Your task to perform on an android device: show emergency info Image 0: 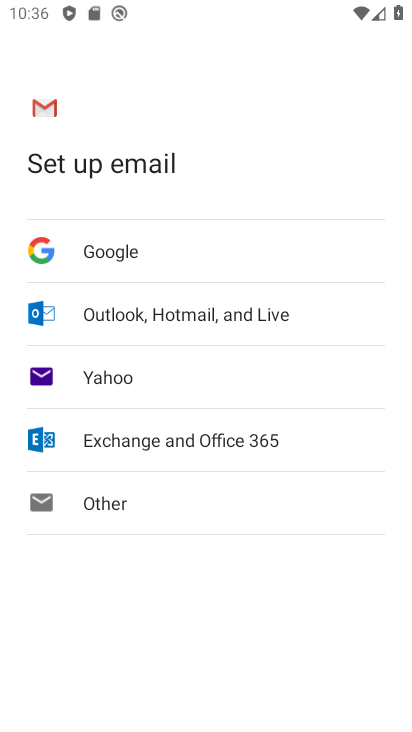
Step 0: press home button
Your task to perform on an android device: show emergency info Image 1: 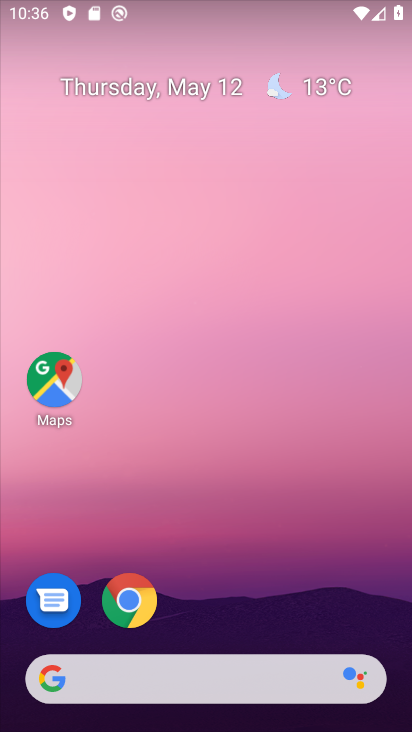
Step 1: drag from (395, 641) to (292, 126)
Your task to perform on an android device: show emergency info Image 2: 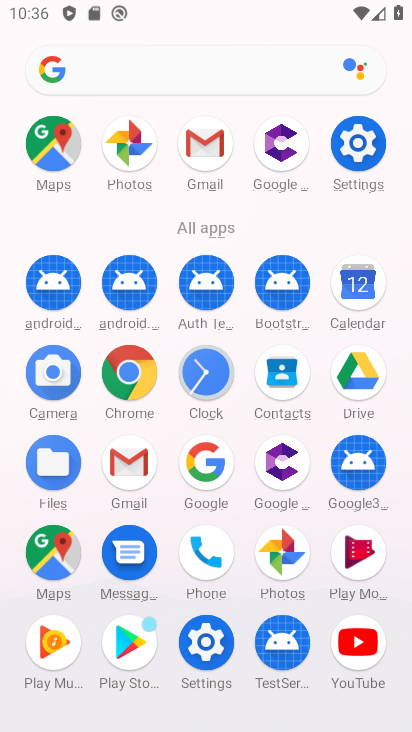
Step 2: click (201, 641)
Your task to perform on an android device: show emergency info Image 3: 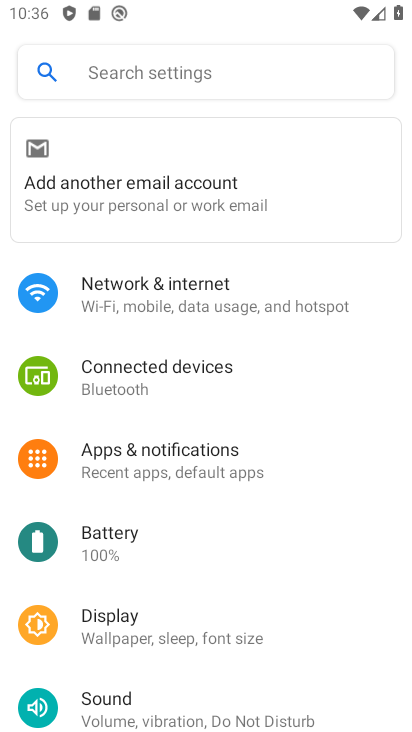
Step 3: drag from (315, 675) to (352, 177)
Your task to perform on an android device: show emergency info Image 4: 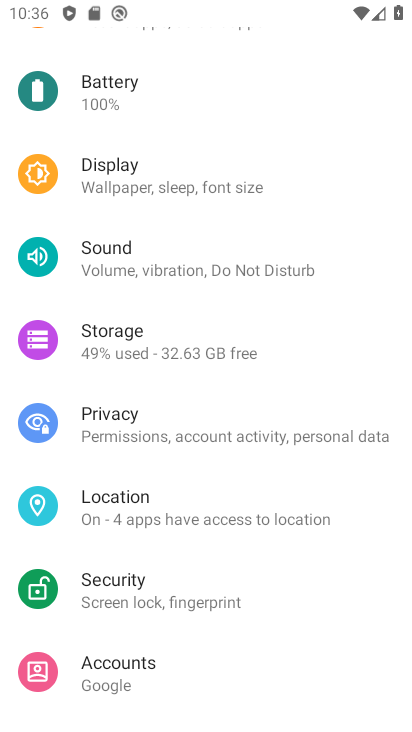
Step 4: drag from (334, 643) to (356, 314)
Your task to perform on an android device: show emergency info Image 5: 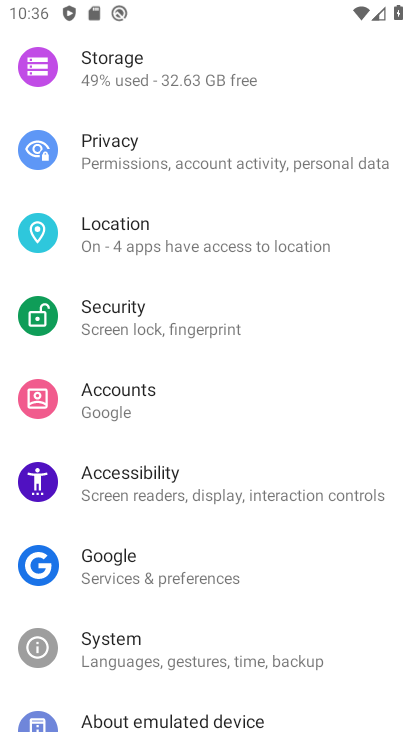
Step 5: drag from (361, 607) to (380, 288)
Your task to perform on an android device: show emergency info Image 6: 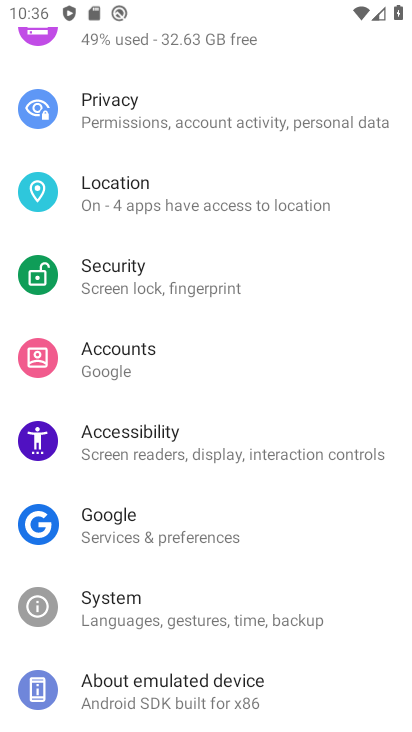
Step 6: click (113, 680)
Your task to perform on an android device: show emergency info Image 7: 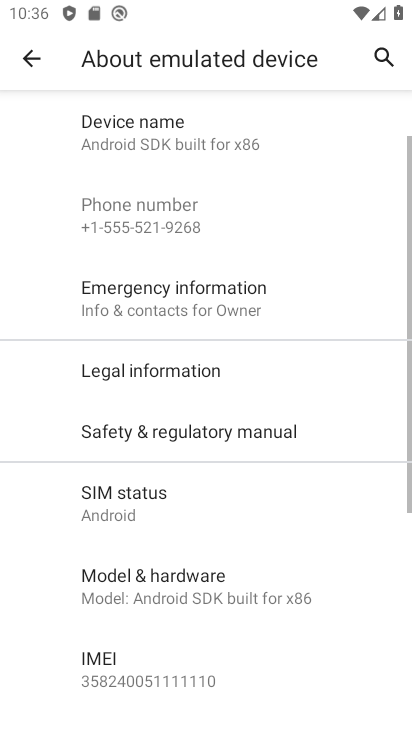
Step 7: click (146, 289)
Your task to perform on an android device: show emergency info Image 8: 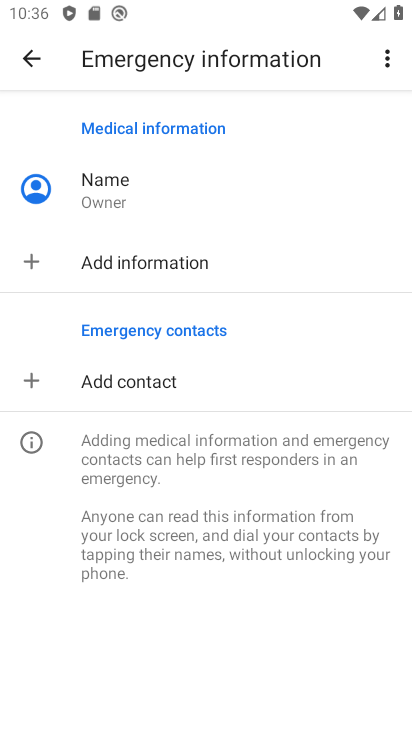
Step 8: task complete